Your task to perform on an android device: toggle pop-ups in chrome Image 0: 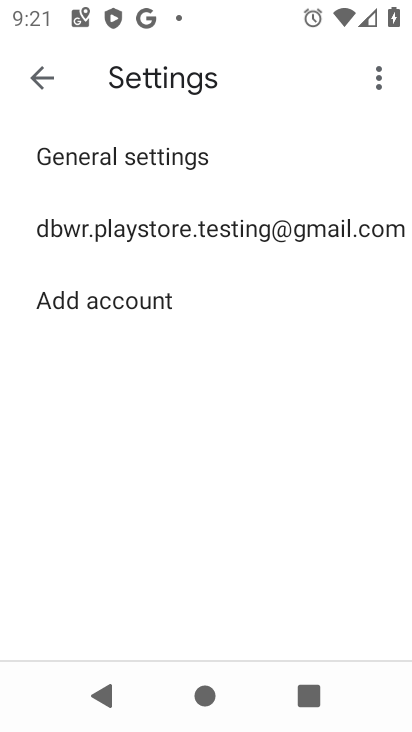
Step 0: press home button
Your task to perform on an android device: toggle pop-ups in chrome Image 1: 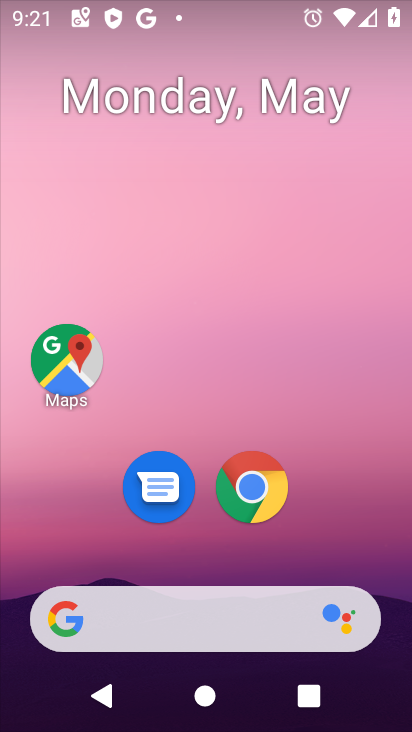
Step 1: click (249, 481)
Your task to perform on an android device: toggle pop-ups in chrome Image 2: 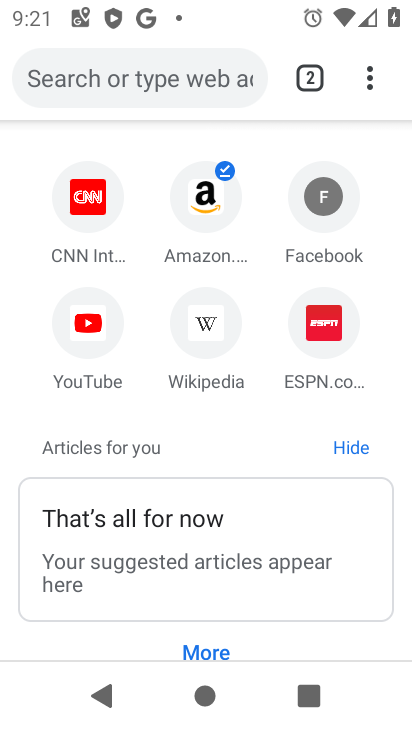
Step 2: click (380, 79)
Your task to perform on an android device: toggle pop-ups in chrome Image 3: 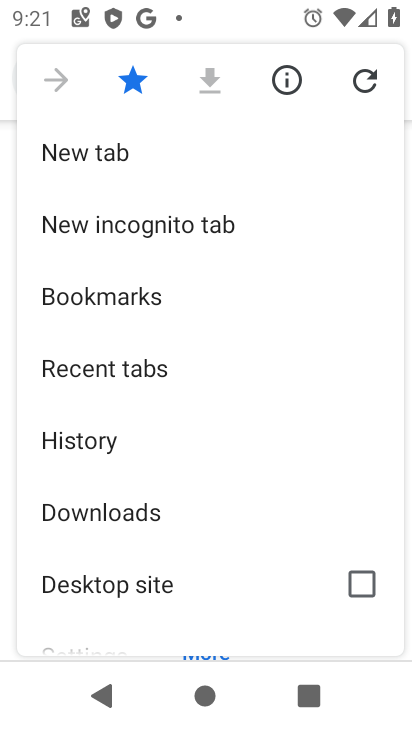
Step 3: drag from (62, 608) to (199, 179)
Your task to perform on an android device: toggle pop-ups in chrome Image 4: 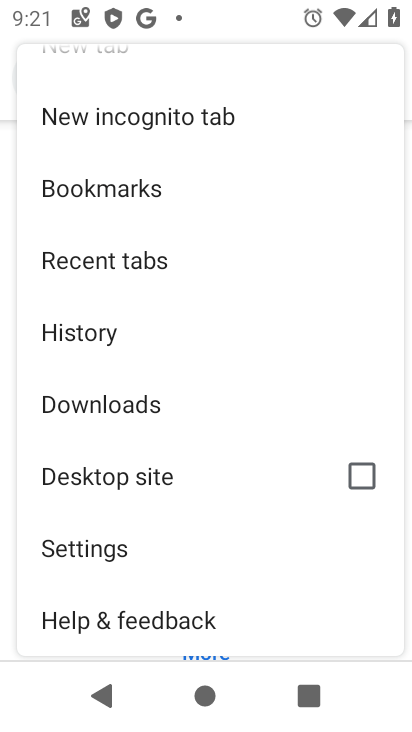
Step 4: click (136, 543)
Your task to perform on an android device: toggle pop-ups in chrome Image 5: 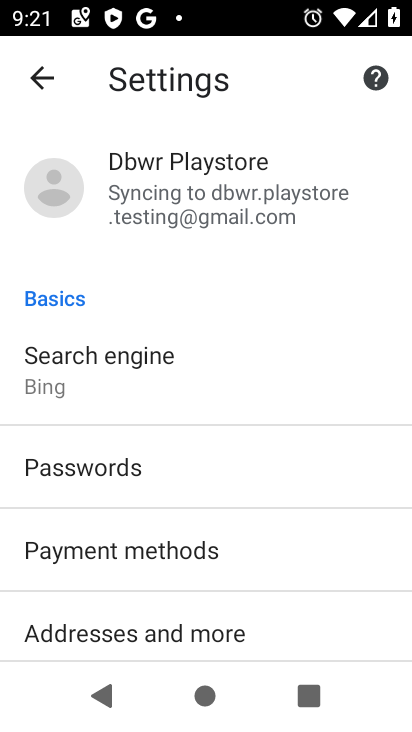
Step 5: drag from (136, 543) to (208, 120)
Your task to perform on an android device: toggle pop-ups in chrome Image 6: 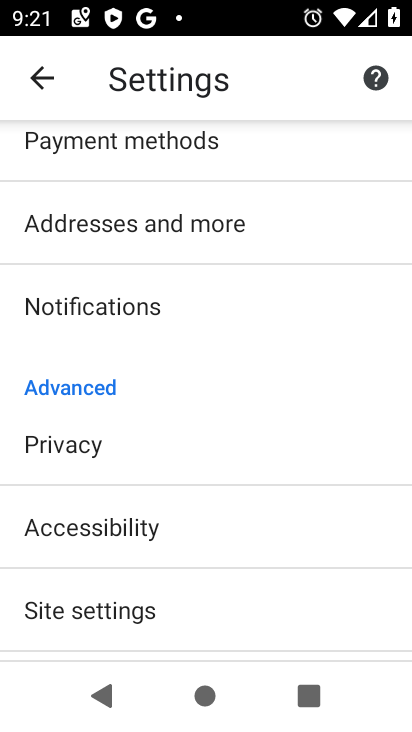
Step 6: click (65, 632)
Your task to perform on an android device: toggle pop-ups in chrome Image 7: 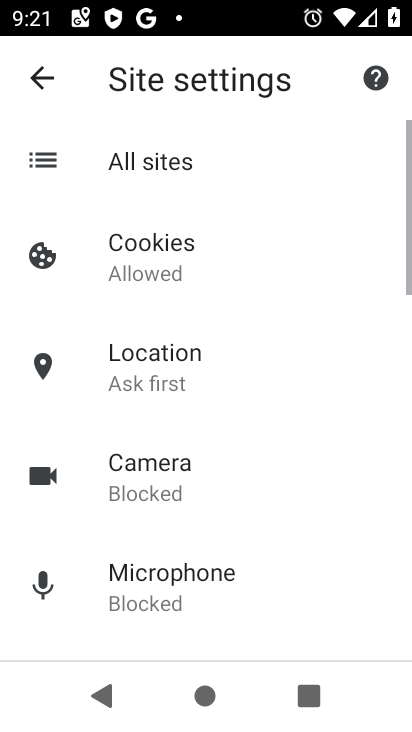
Step 7: drag from (65, 632) to (125, 298)
Your task to perform on an android device: toggle pop-ups in chrome Image 8: 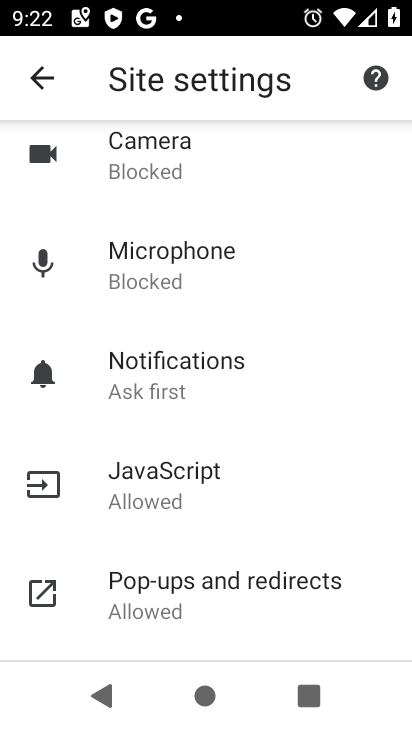
Step 8: click (223, 625)
Your task to perform on an android device: toggle pop-ups in chrome Image 9: 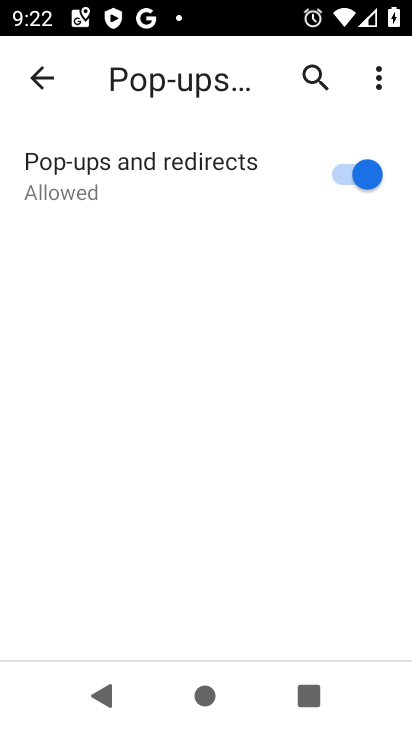
Step 9: click (363, 182)
Your task to perform on an android device: toggle pop-ups in chrome Image 10: 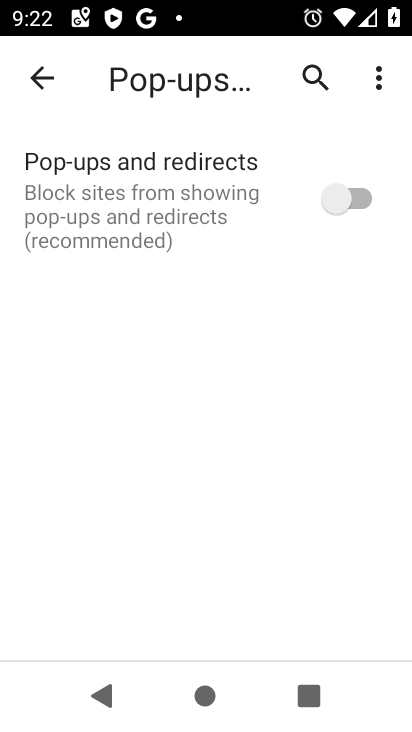
Step 10: click (363, 182)
Your task to perform on an android device: toggle pop-ups in chrome Image 11: 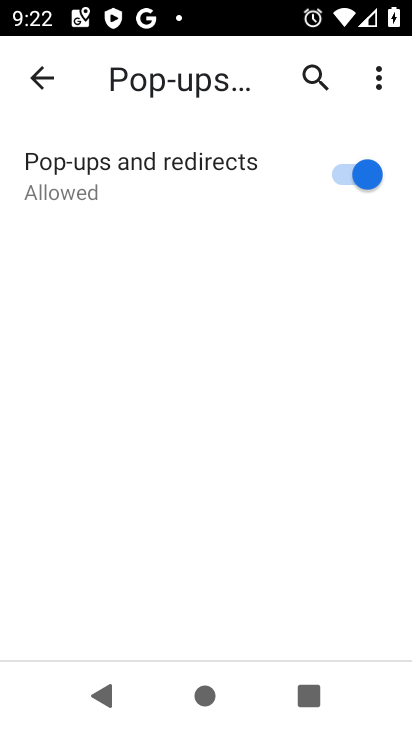
Step 11: task complete